Your task to perform on an android device: See recent photos Image 0: 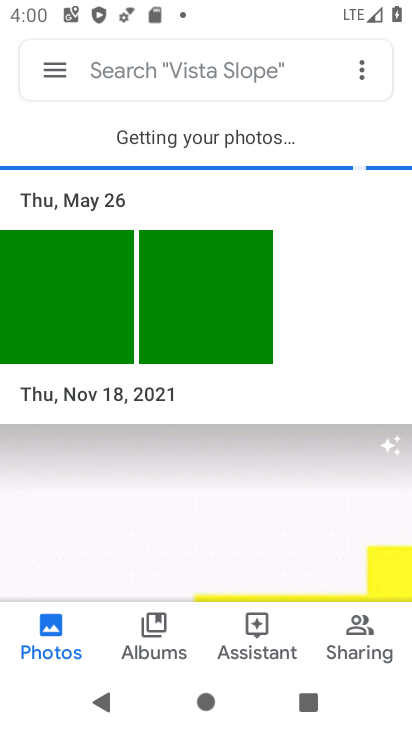
Step 0: press home button
Your task to perform on an android device: See recent photos Image 1: 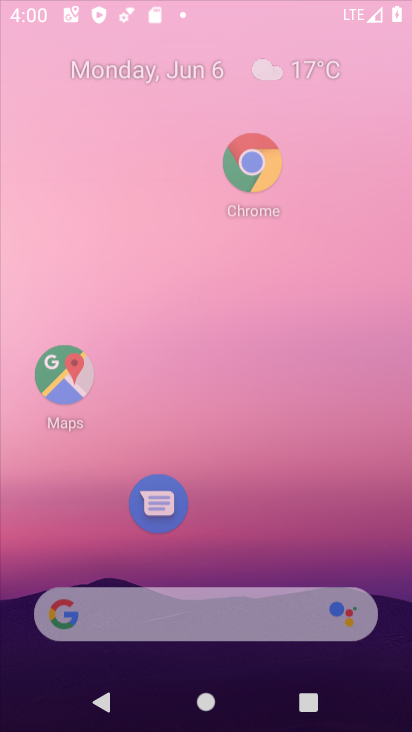
Step 1: click (99, 317)
Your task to perform on an android device: See recent photos Image 2: 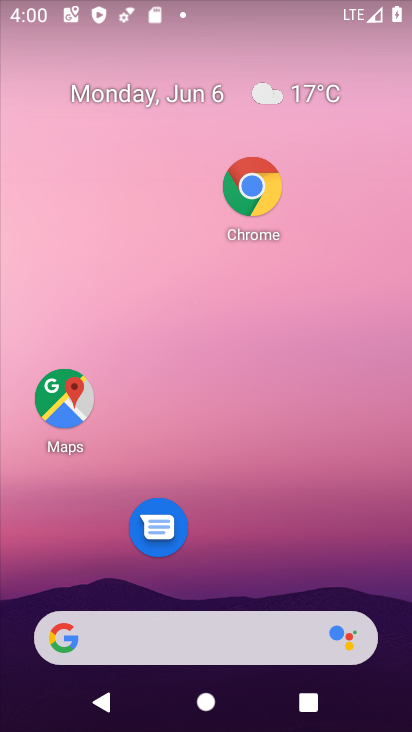
Step 2: drag from (130, 617) to (130, 345)
Your task to perform on an android device: See recent photos Image 3: 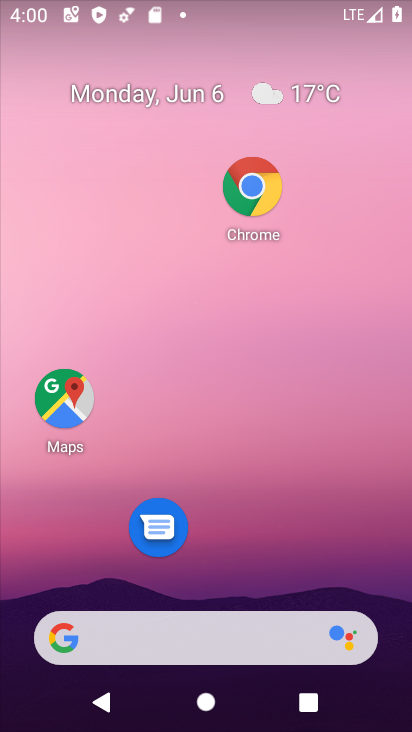
Step 3: drag from (202, 599) to (199, 341)
Your task to perform on an android device: See recent photos Image 4: 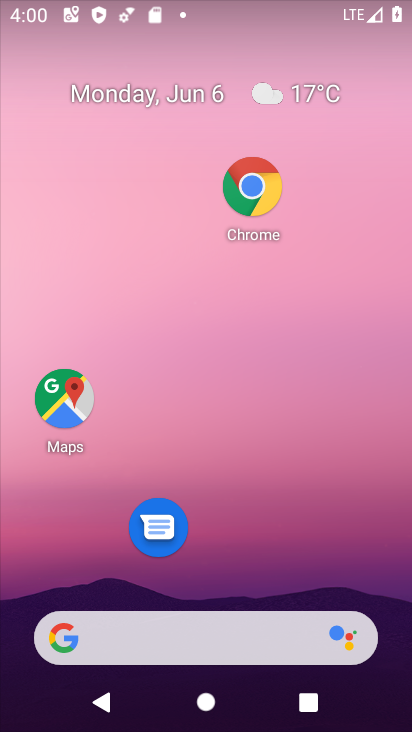
Step 4: drag from (222, 598) to (222, 330)
Your task to perform on an android device: See recent photos Image 5: 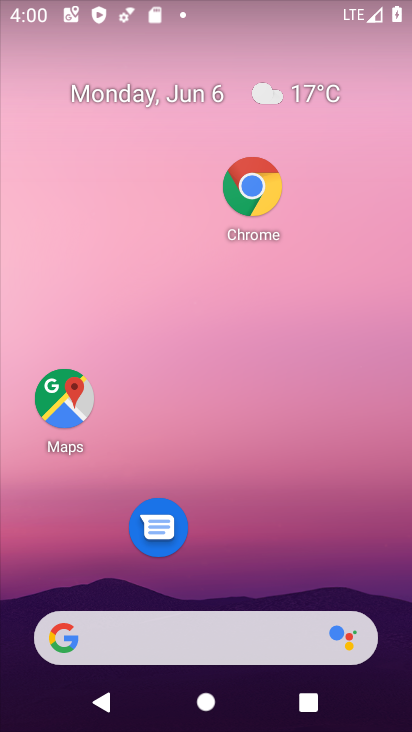
Step 5: drag from (208, 612) to (210, 129)
Your task to perform on an android device: See recent photos Image 6: 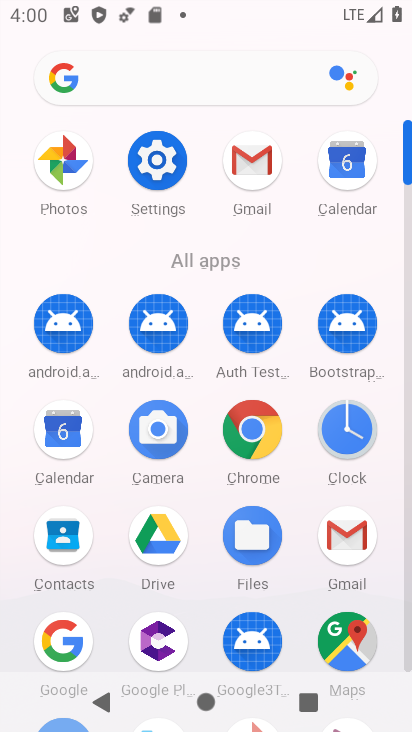
Step 6: click (80, 164)
Your task to perform on an android device: See recent photos Image 7: 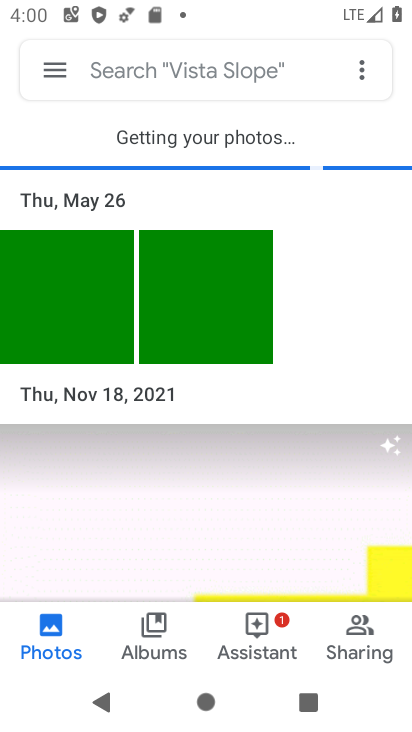
Step 7: click (85, 313)
Your task to perform on an android device: See recent photos Image 8: 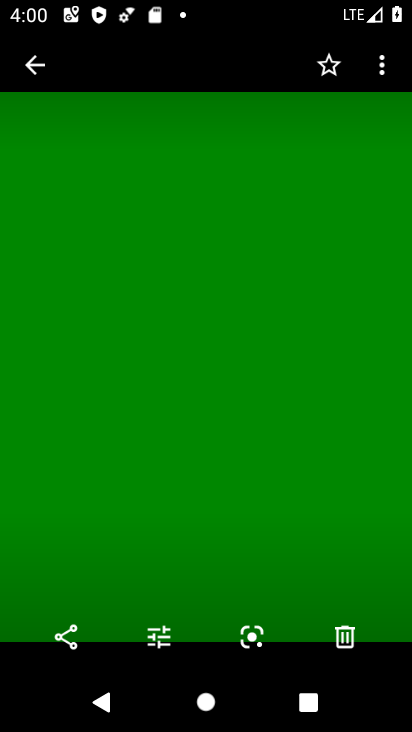
Step 8: task complete